Your task to perform on an android device: remove spam from my inbox in the gmail app Image 0: 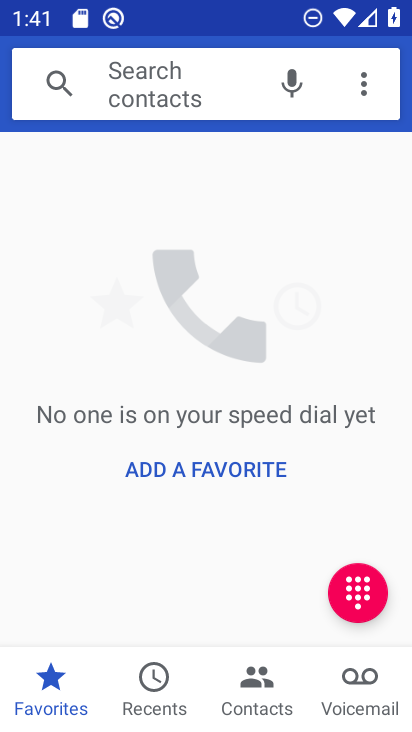
Step 0: press back button
Your task to perform on an android device: remove spam from my inbox in the gmail app Image 1: 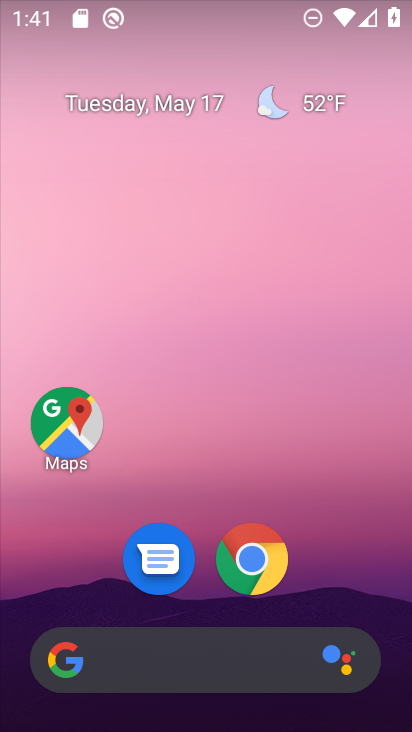
Step 1: drag from (305, 572) to (220, 155)
Your task to perform on an android device: remove spam from my inbox in the gmail app Image 2: 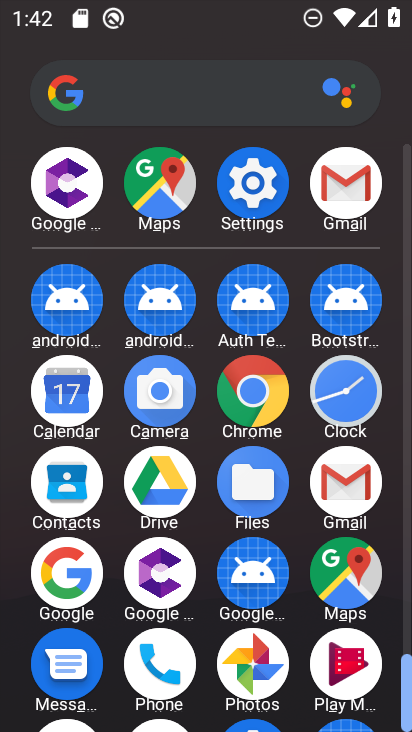
Step 2: click (345, 180)
Your task to perform on an android device: remove spam from my inbox in the gmail app Image 3: 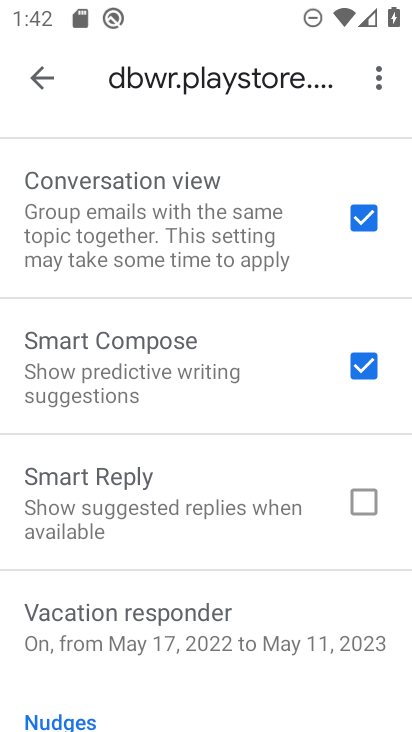
Step 3: press back button
Your task to perform on an android device: remove spam from my inbox in the gmail app Image 4: 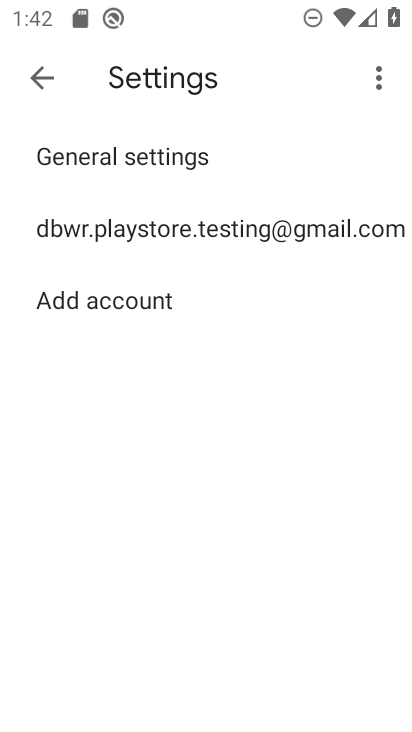
Step 4: press back button
Your task to perform on an android device: remove spam from my inbox in the gmail app Image 5: 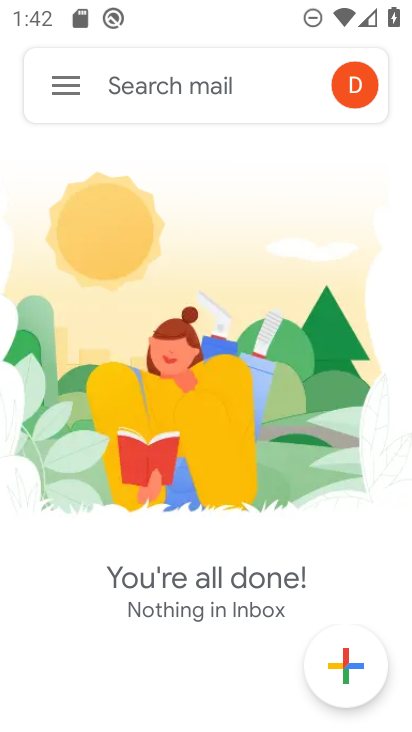
Step 5: click (63, 83)
Your task to perform on an android device: remove spam from my inbox in the gmail app Image 6: 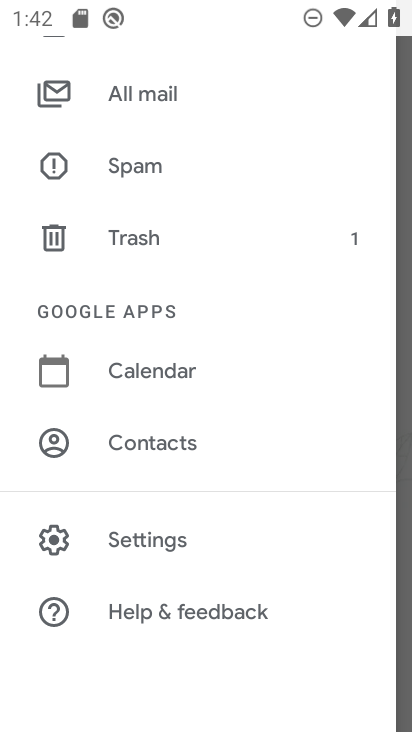
Step 6: click (144, 169)
Your task to perform on an android device: remove spam from my inbox in the gmail app Image 7: 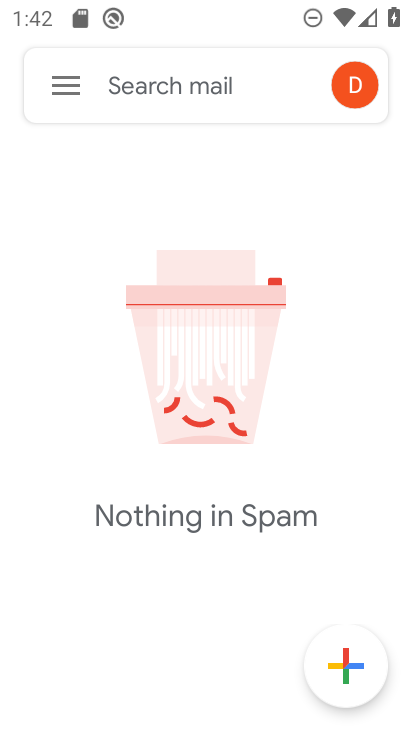
Step 7: task complete